Your task to perform on an android device: Go to location settings Image 0: 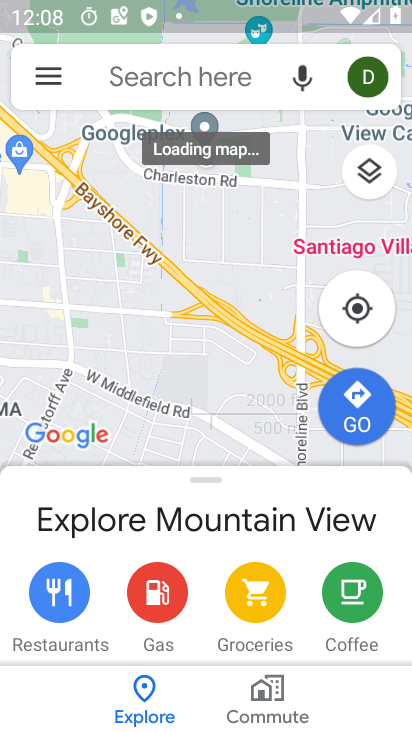
Step 0: press home button
Your task to perform on an android device: Go to location settings Image 1: 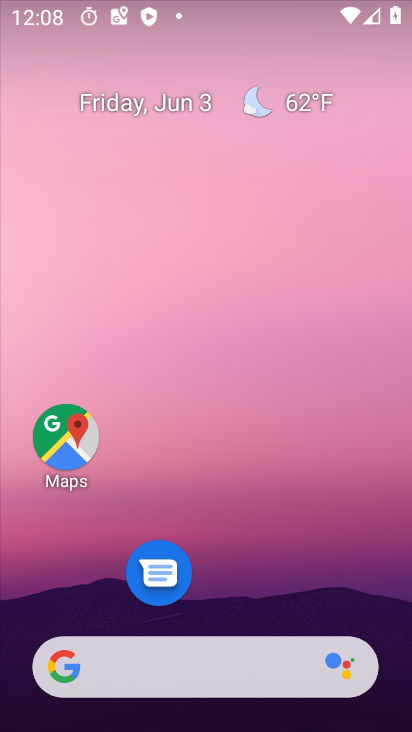
Step 1: drag from (306, 629) to (271, 53)
Your task to perform on an android device: Go to location settings Image 2: 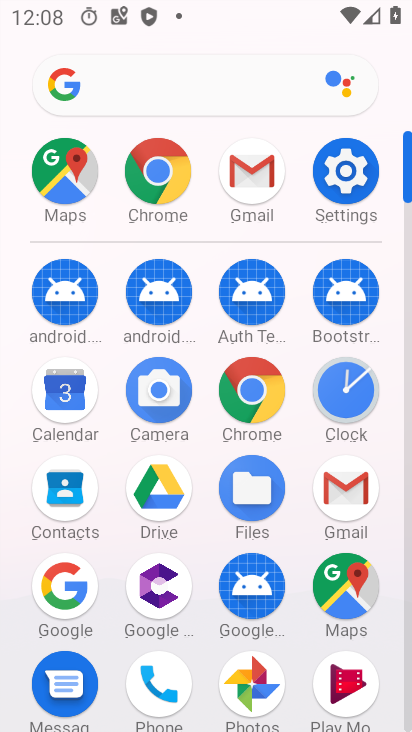
Step 2: click (353, 208)
Your task to perform on an android device: Go to location settings Image 3: 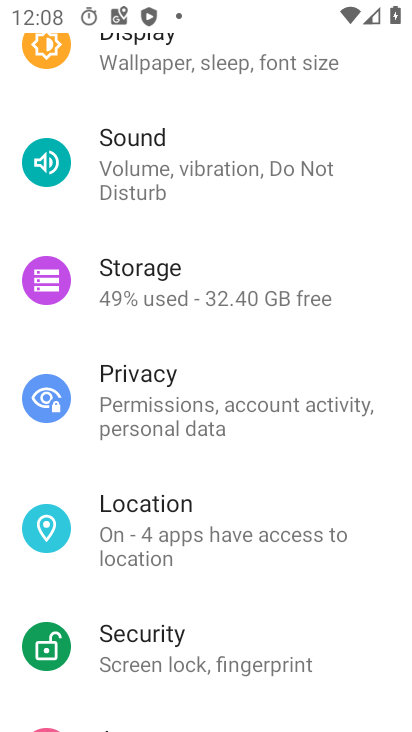
Step 3: click (124, 519)
Your task to perform on an android device: Go to location settings Image 4: 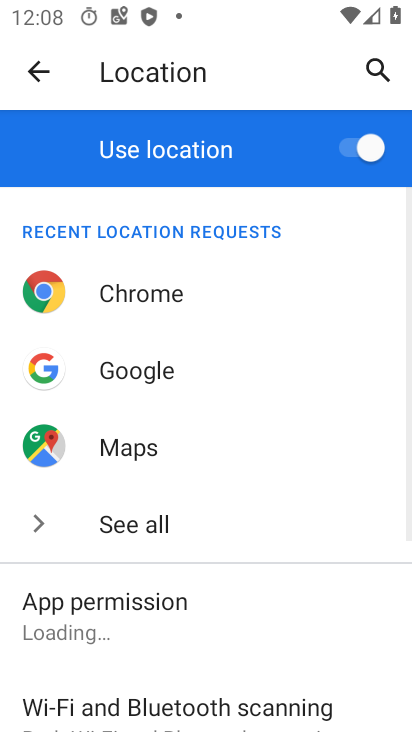
Step 4: task complete